Your task to perform on an android device: uninstall "Roku - Official Remote Control" Image 0: 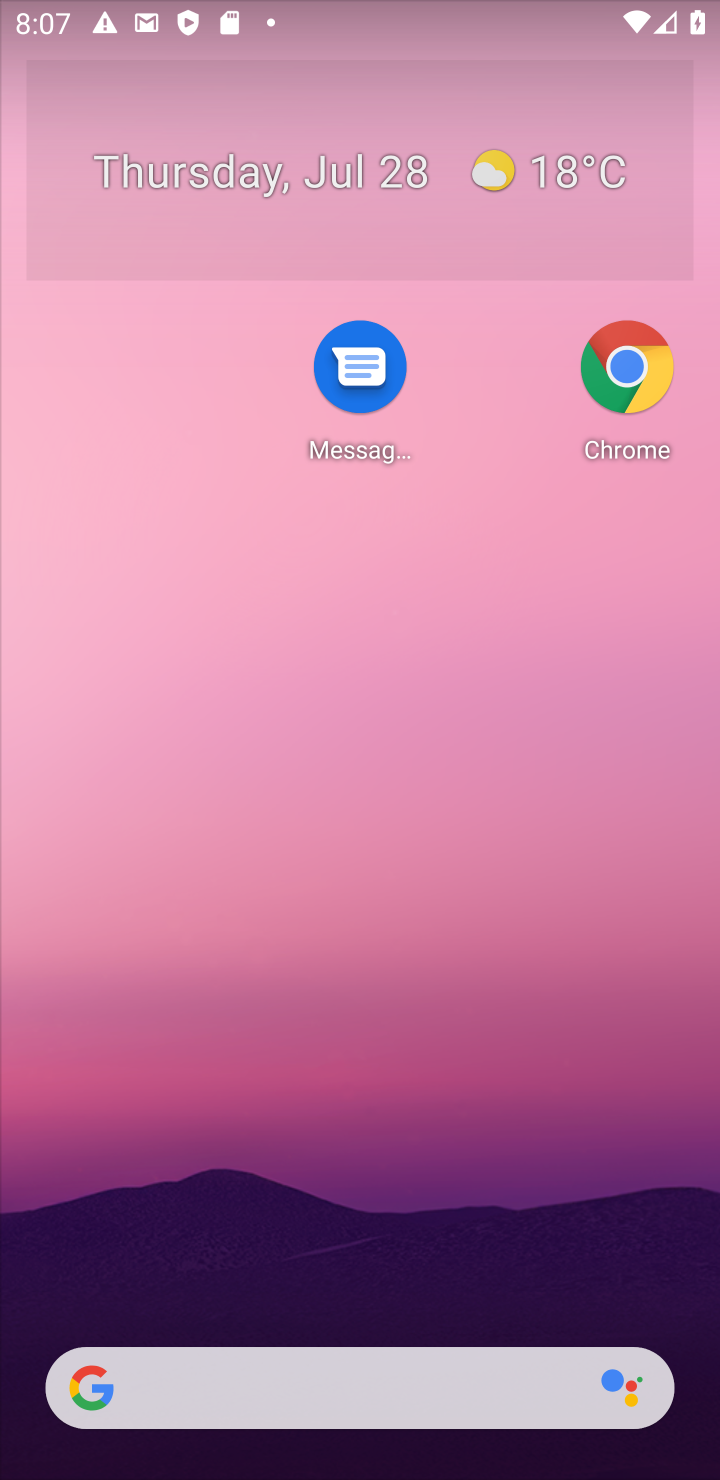
Step 0: click (412, 205)
Your task to perform on an android device: uninstall "Roku - Official Remote Control" Image 1: 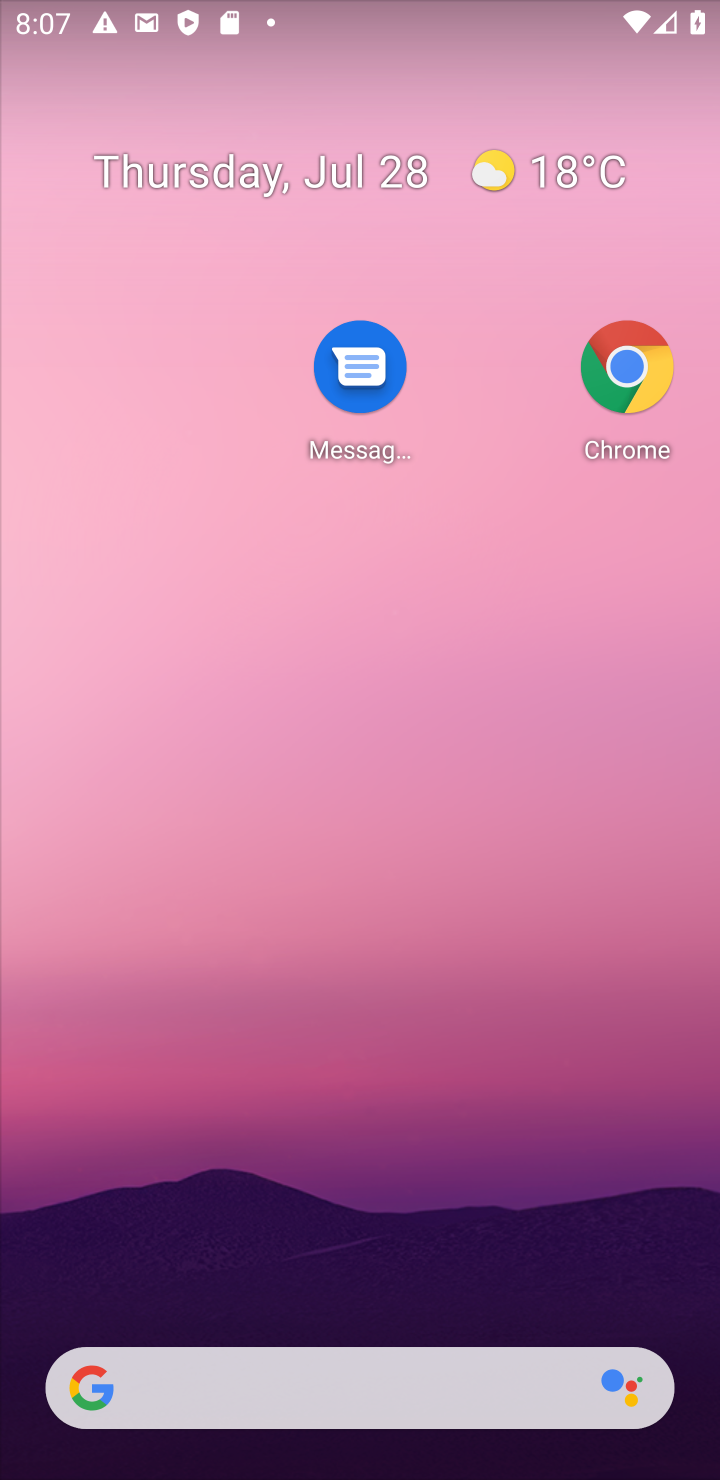
Step 1: drag from (166, 1470) to (463, 3)
Your task to perform on an android device: uninstall "Roku - Official Remote Control" Image 2: 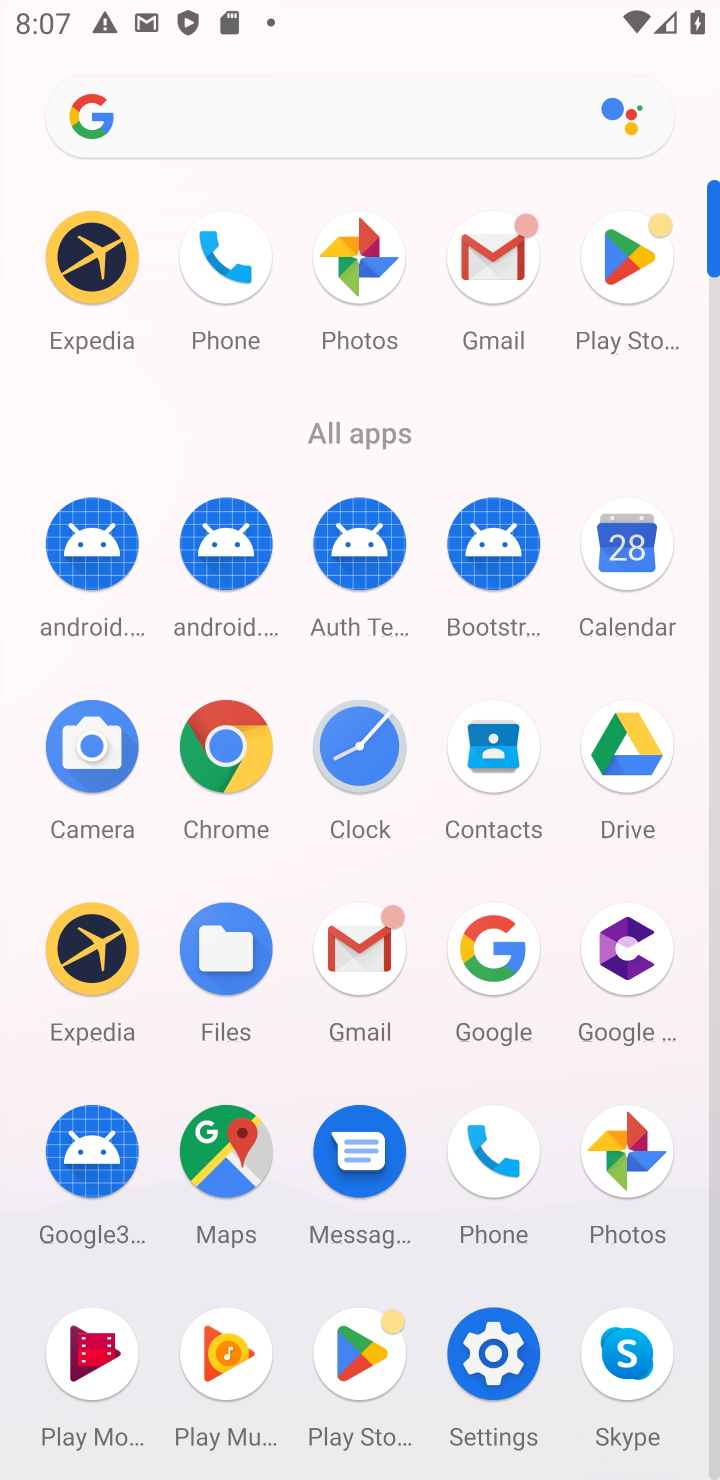
Step 2: click (359, 1341)
Your task to perform on an android device: uninstall "Roku - Official Remote Control" Image 3: 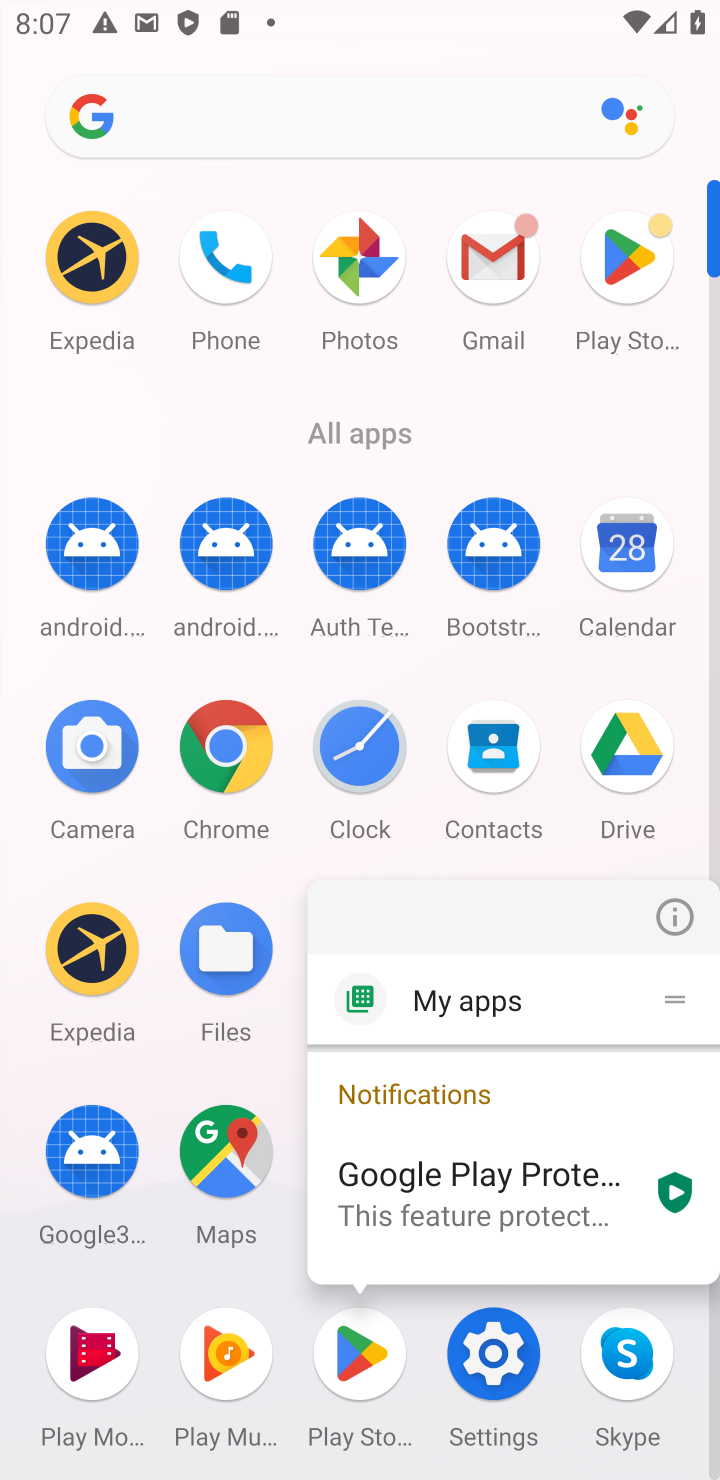
Step 3: click (359, 1341)
Your task to perform on an android device: uninstall "Roku - Official Remote Control" Image 4: 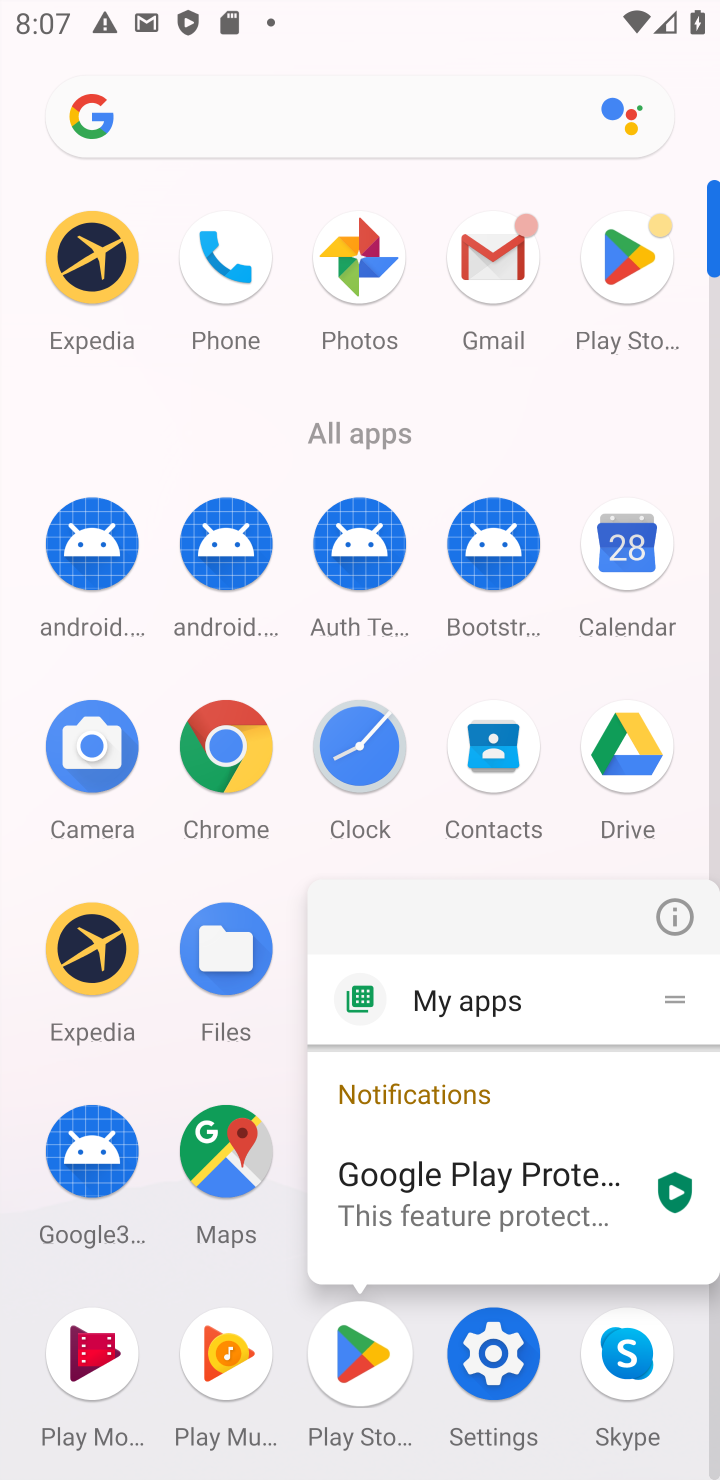
Step 4: click (359, 1341)
Your task to perform on an android device: uninstall "Roku - Official Remote Control" Image 5: 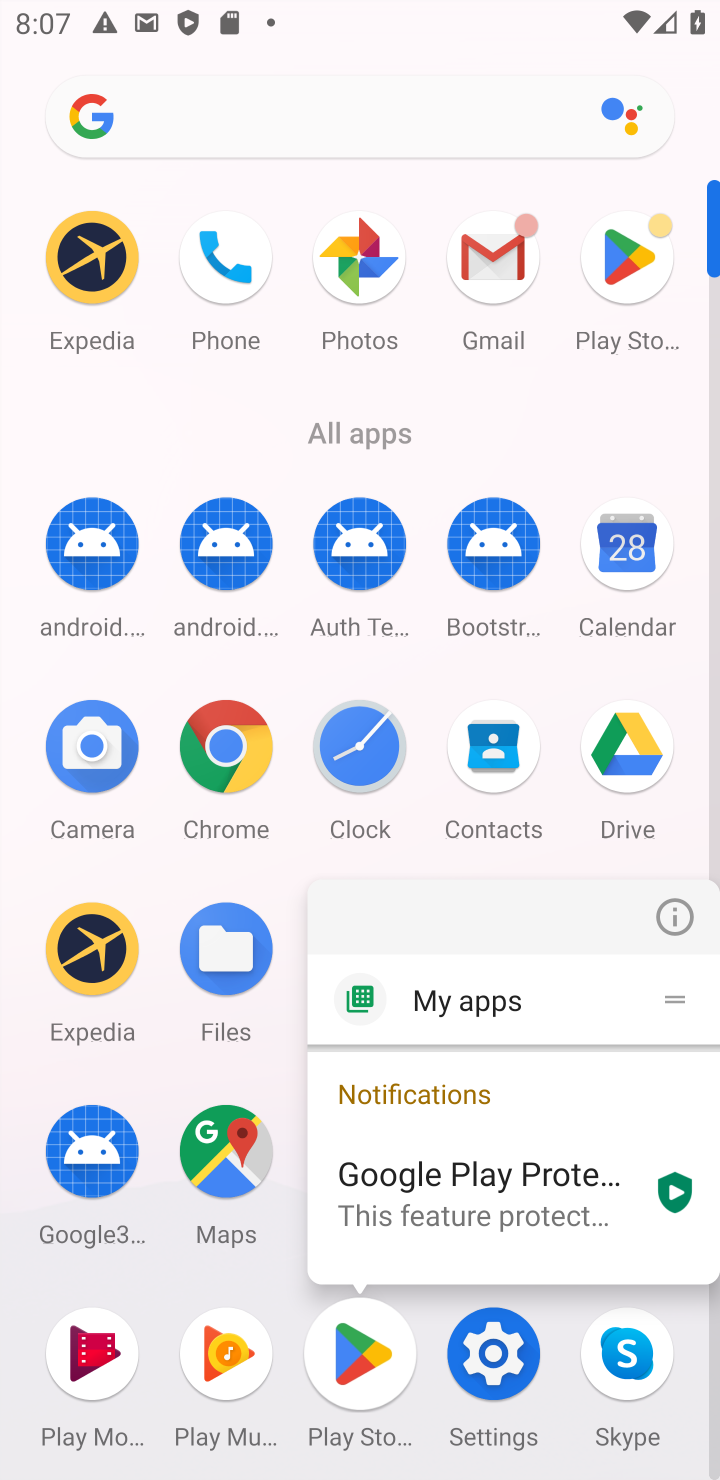
Step 5: click (359, 1341)
Your task to perform on an android device: uninstall "Roku - Official Remote Control" Image 6: 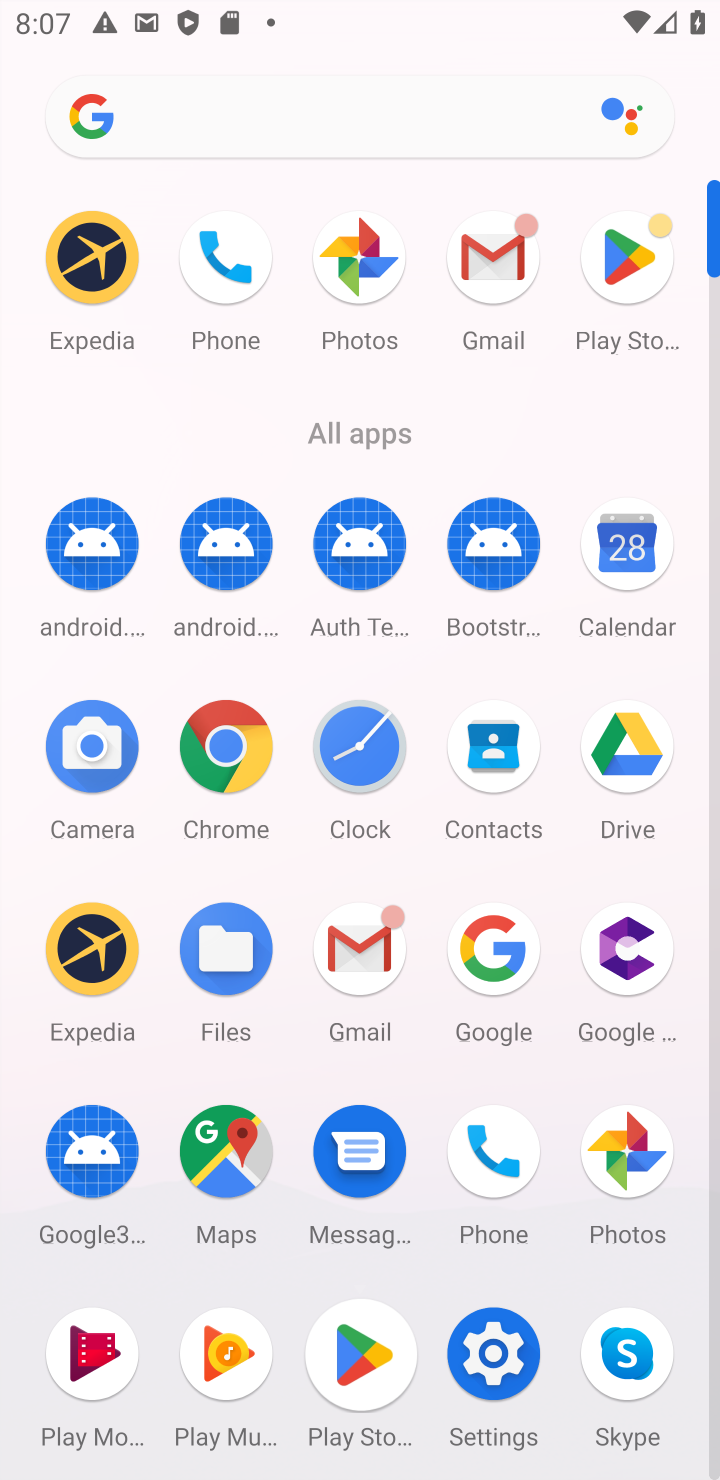
Step 6: click (359, 1398)
Your task to perform on an android device: uninstall "Roku - Official Remote Control" Image 7: 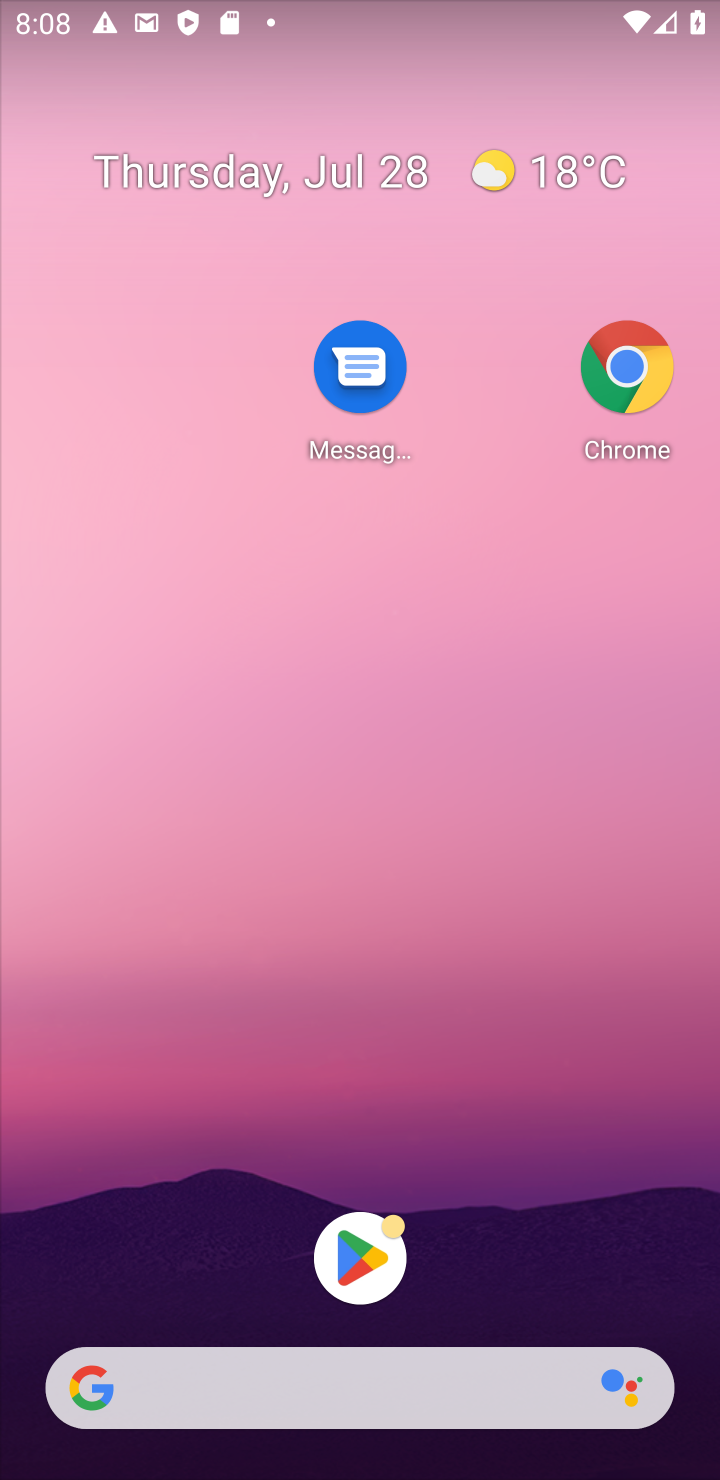
Step 7: click (351, 1246)
Your task to perform on an android device: uninstall "Roku - Official Remote Control" Image 8: 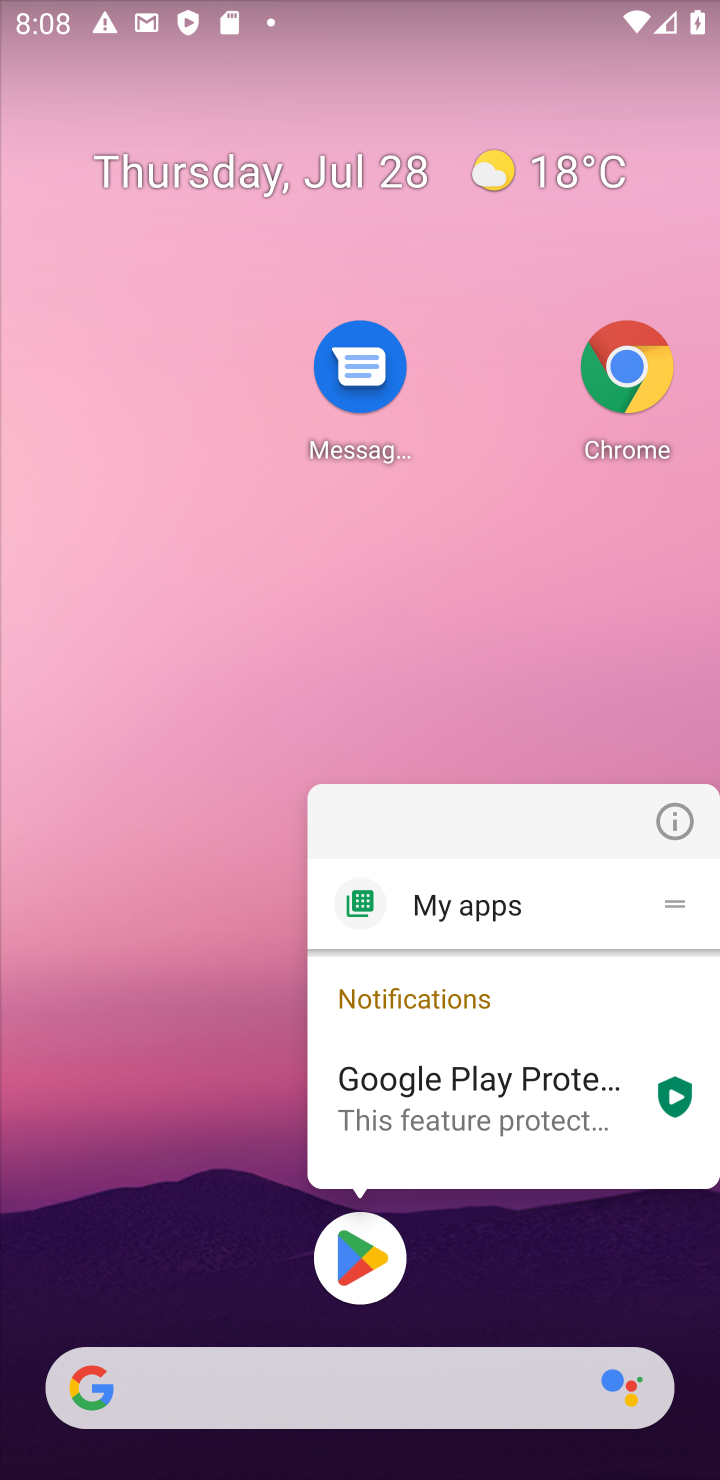
Step 8: click (351, 1246)
Your task to perform on an android device: uninstall "Roku - Official Remote Control" Image 9: 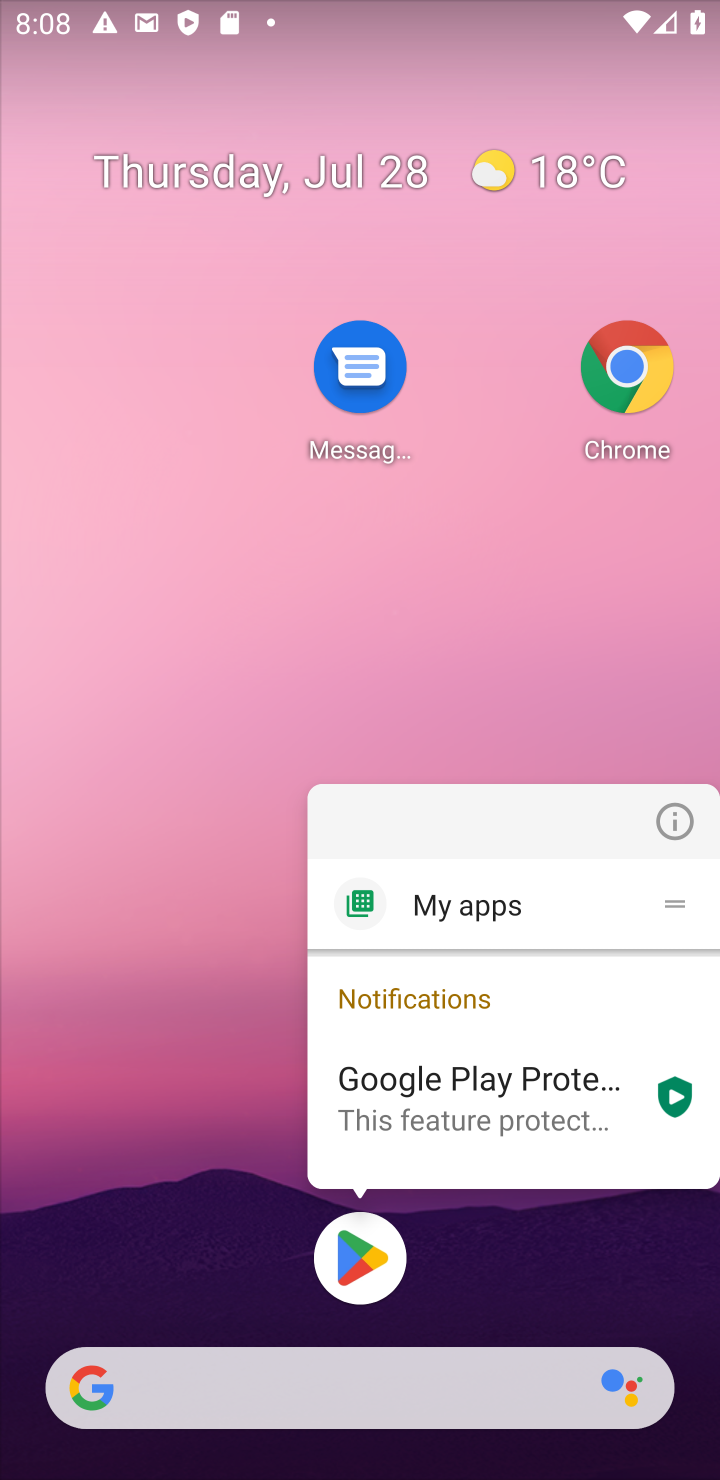
Step 9: click (418, 907)
Your task to perform on an android device: uninstall "Roku - Official Remote Control" Image 10: 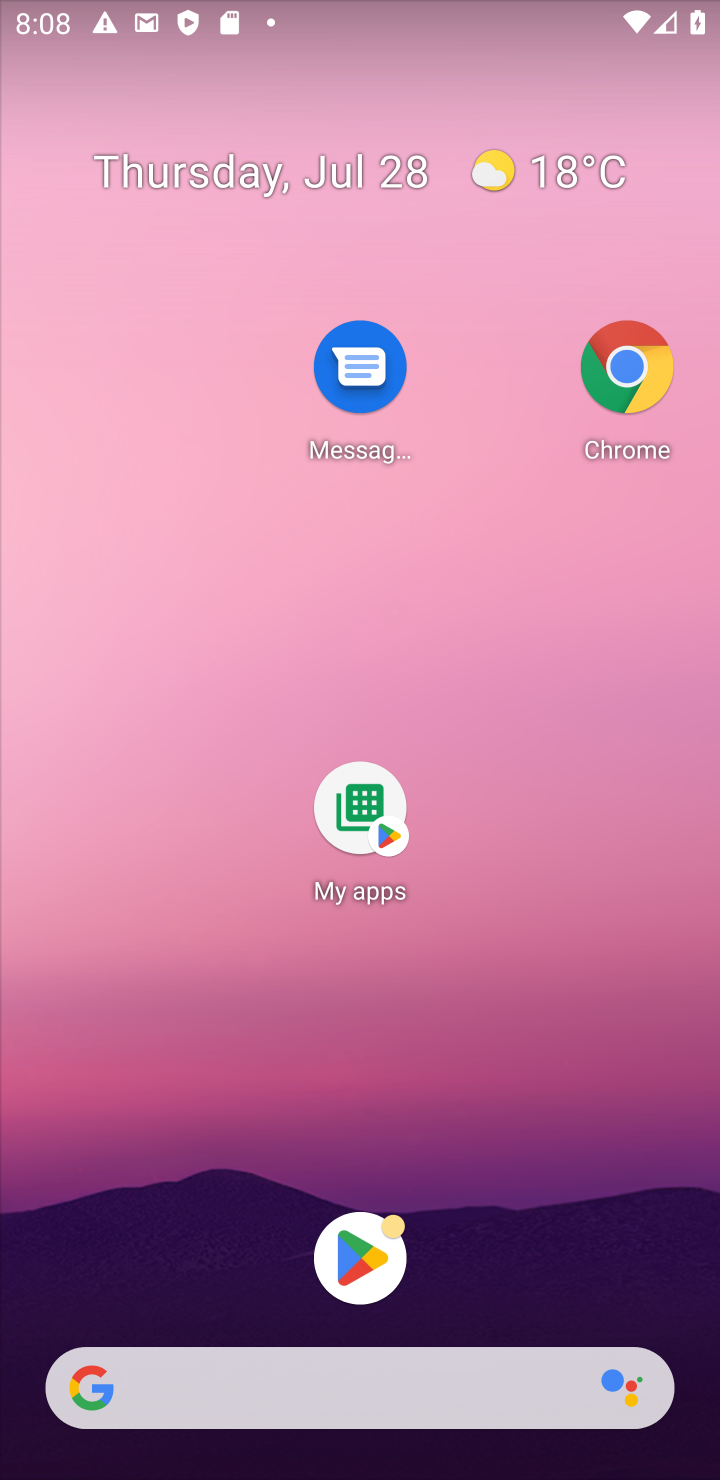
Step 10: click (365, 793)
Your task to perform on an android device: uninstall "Roku - Official Remote Control" Image 11: 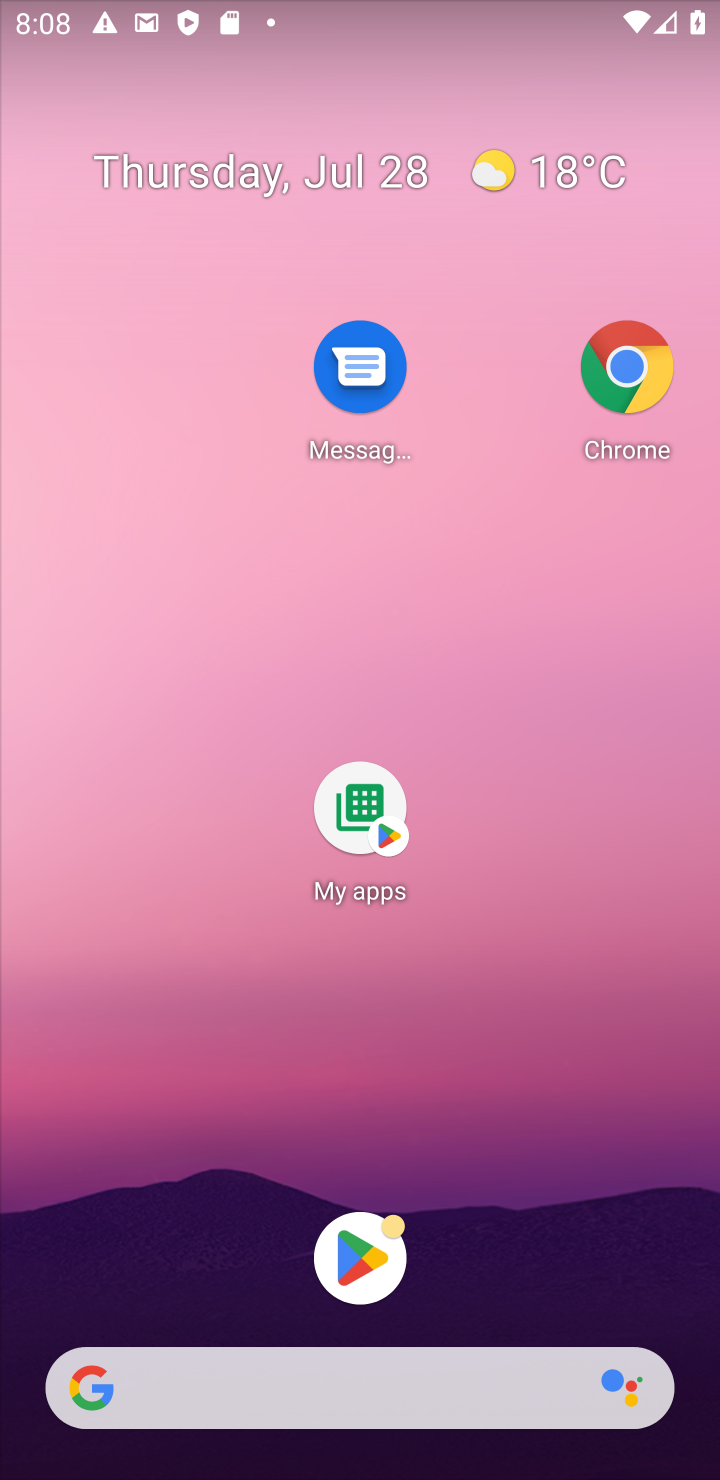
Step 11: click (358, 1267)
Your task to perform on an android device: uninstall "Roku - Official Remote Control" Image 12: 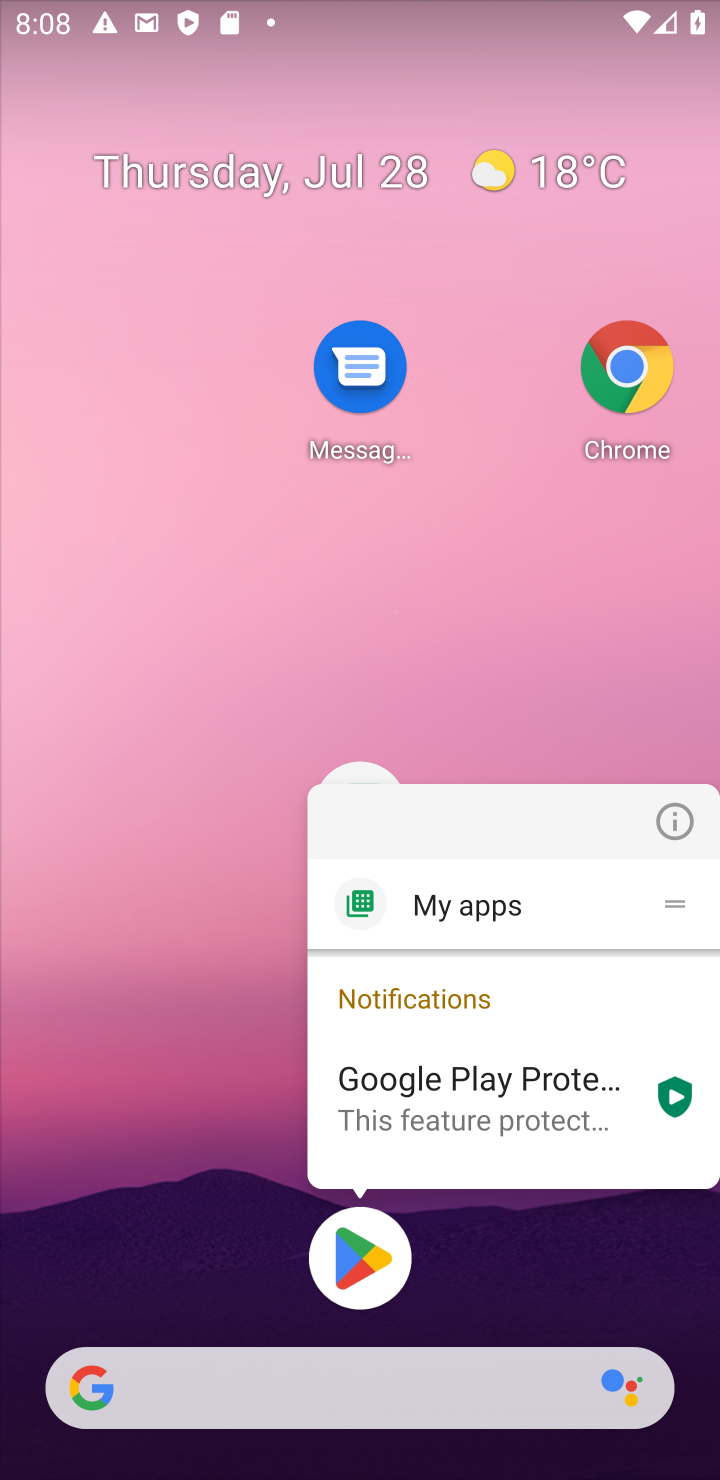
Step 12: click (358, 1267)
Your task to perform on an android device: uninstall "Roku - Official Remote Control" Image 13: 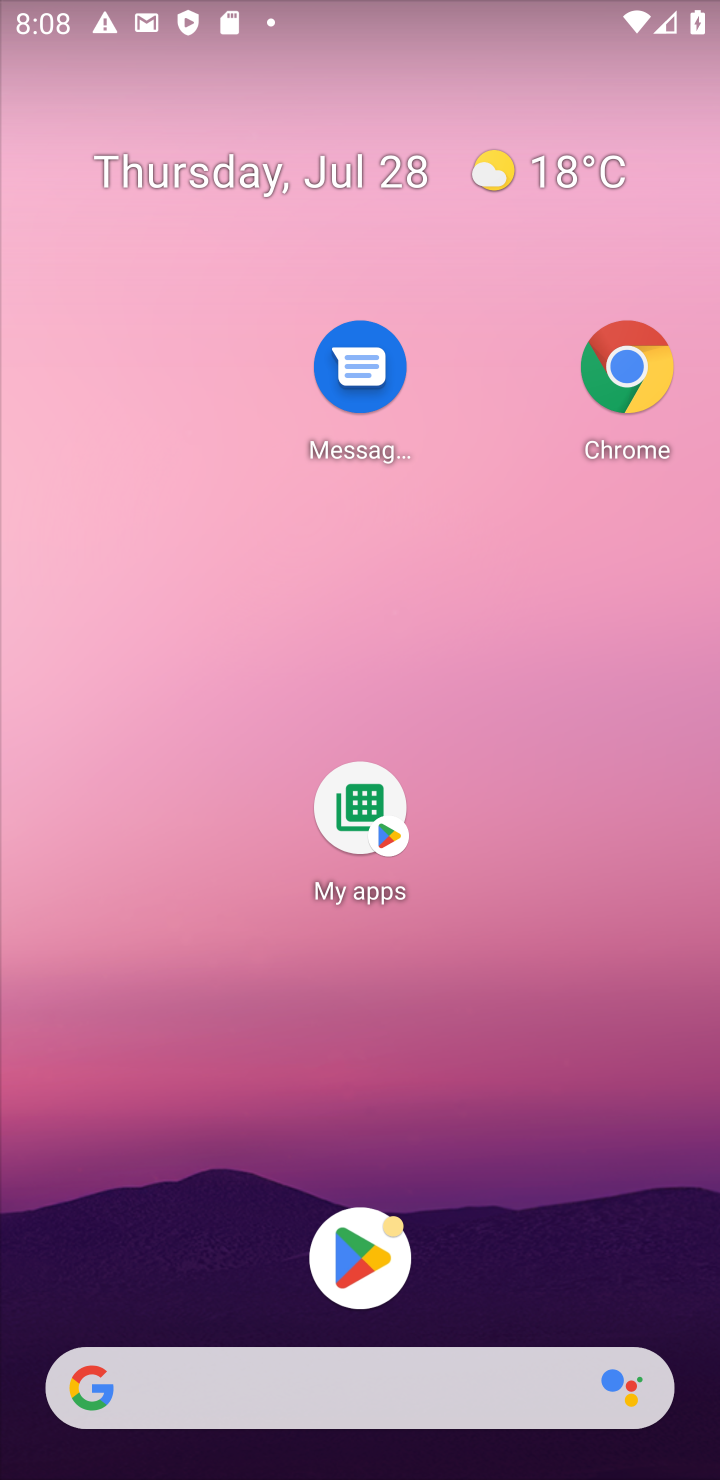
Step 13: click (451, 1117)
Your task to perform on an android device: uninstall "Roku - Official Remote Control" Image 14: 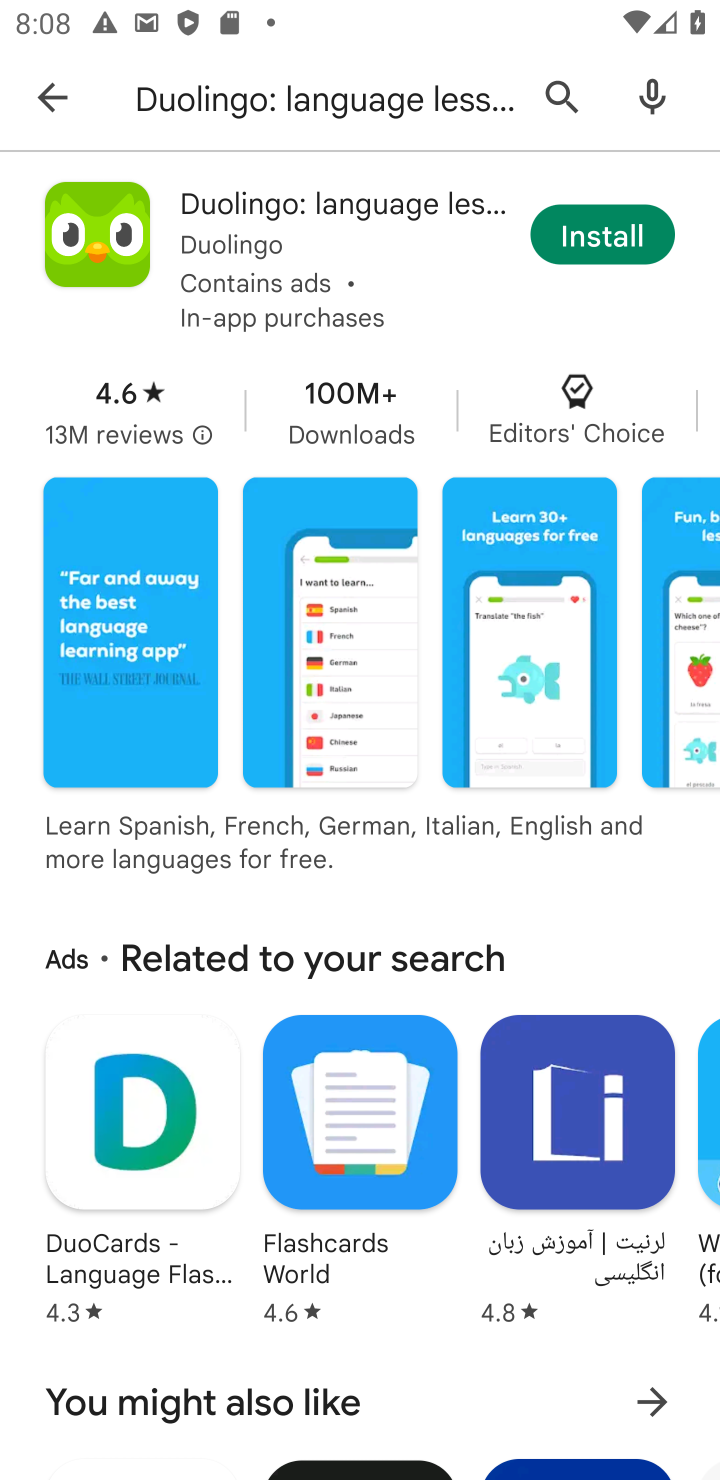
Step 14: click (558, 97)
Your task to perform on an android device: uninstall "Roku - Official Remote Control" Image 15: 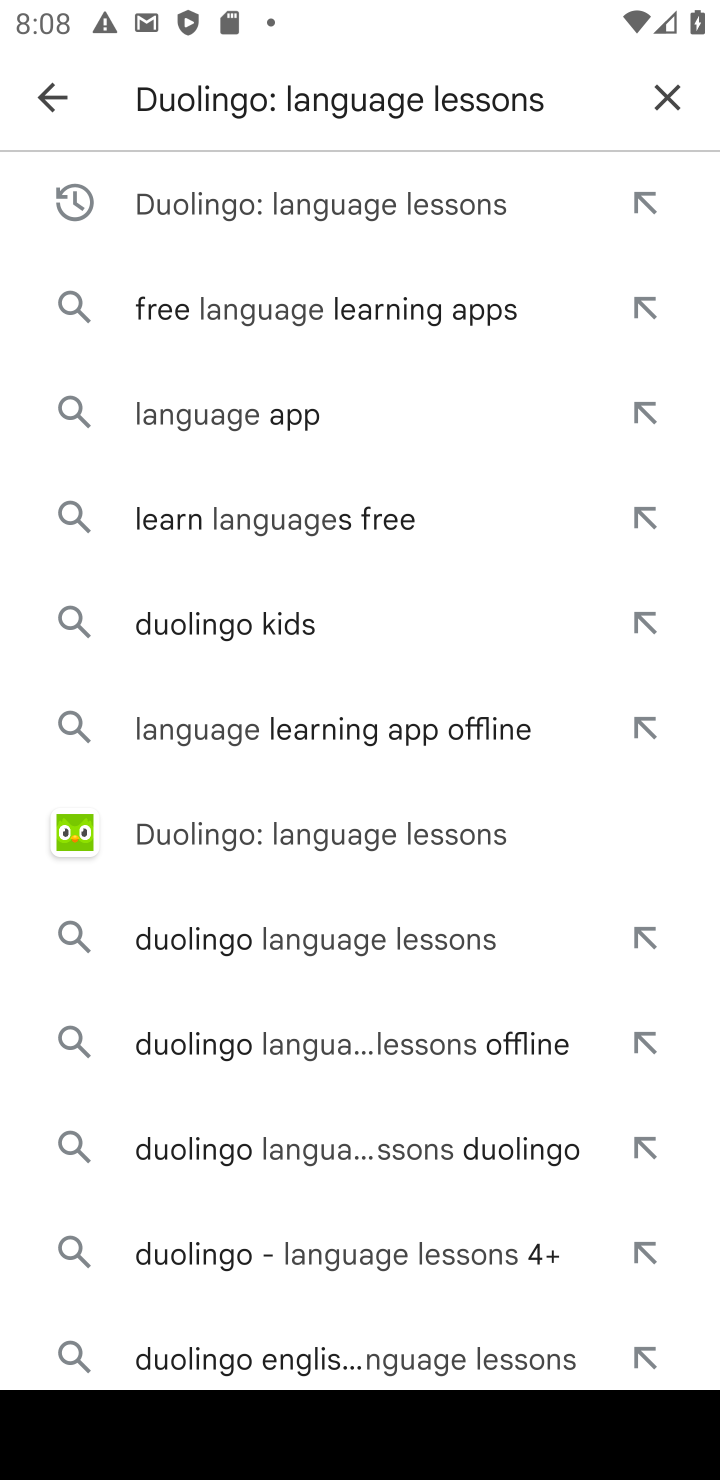
Step 15: click (670, 87)
Your task to perform on an android device: uninstall "Roku - Official Remote Control" Image 16: 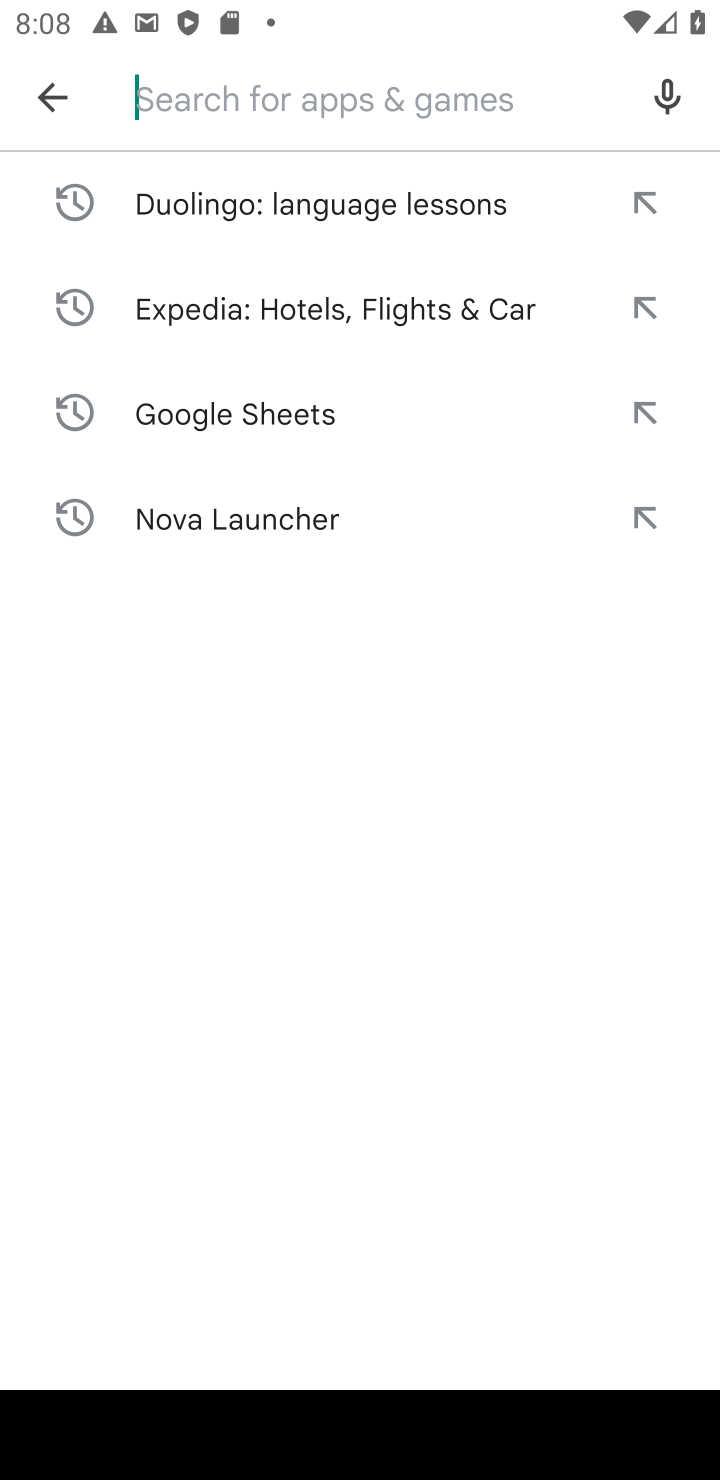
Step 16: press enter
Your task to perform on an android device: uninstall "Roku - Official Remote Control" Image 17: 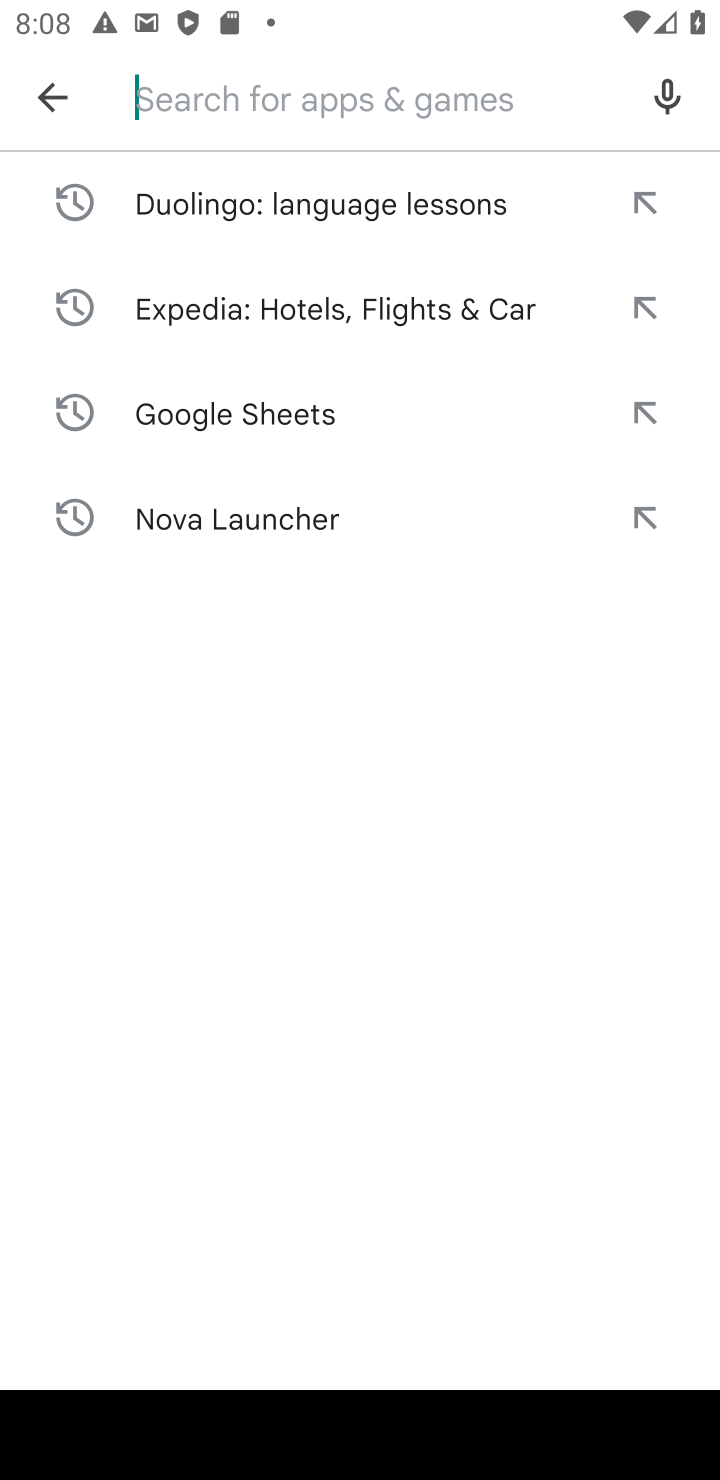
Step 17: type "Roku - Official Remote Control"
Your task to perform on an android device: uninstall "Roku - Official Remote Control" Image 18: 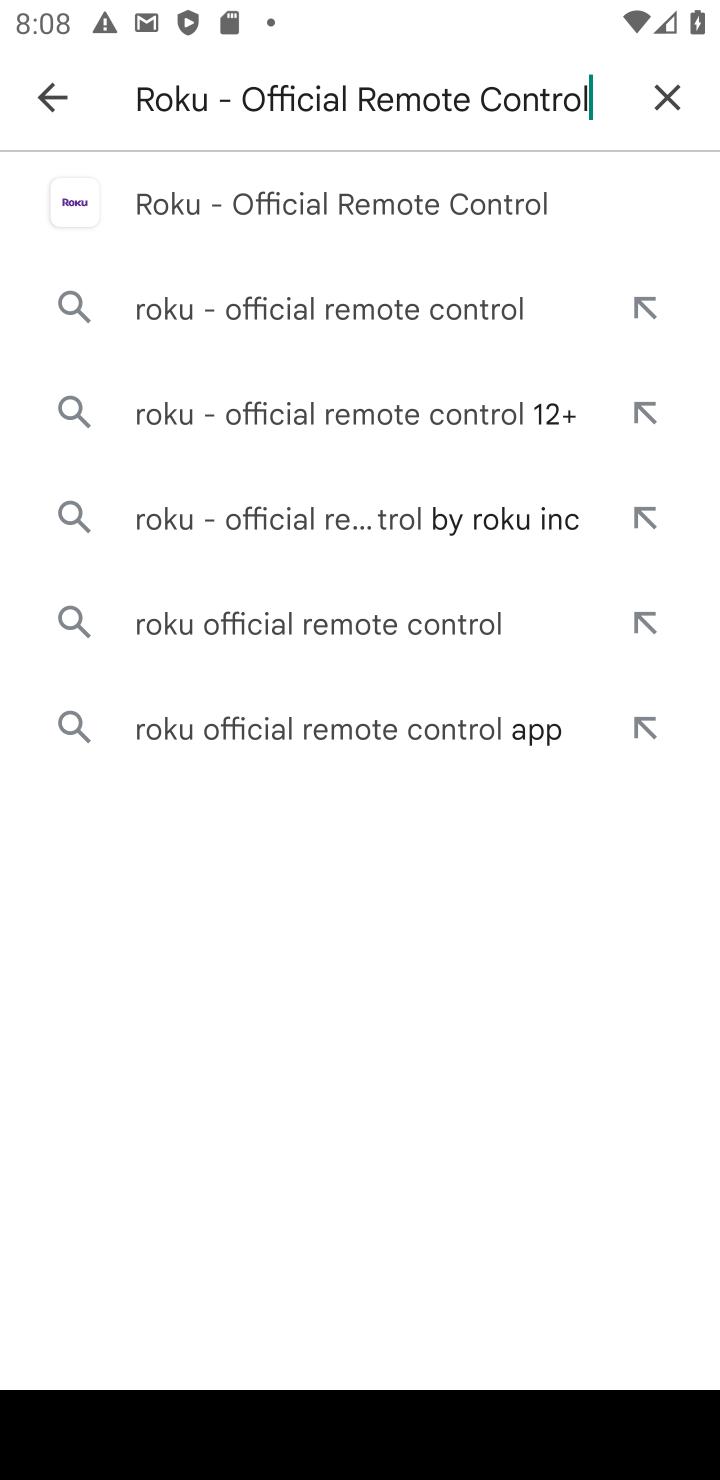
Step 18: press enter
Your task to perform on an android device: uninstall "Roku - Official Remote Control" Image 19: 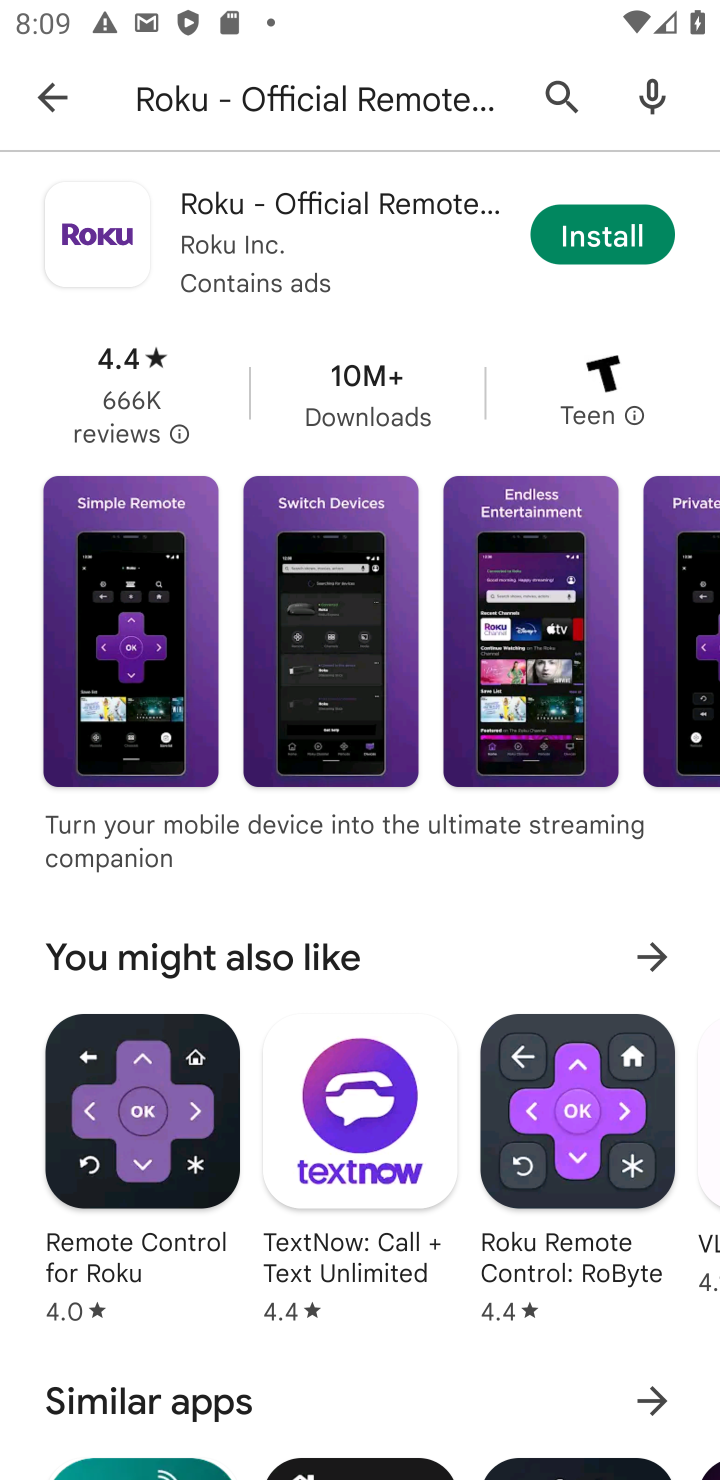
Step 19: task complete